Your task to perform on an android device: check storage Image 0: 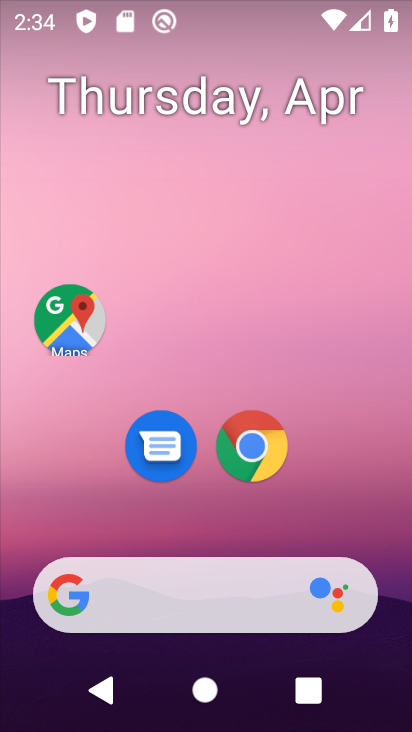
Step 0: drag from (231, 641) to (290, 41)
Your task to perform on an android device: check storage Image 1: 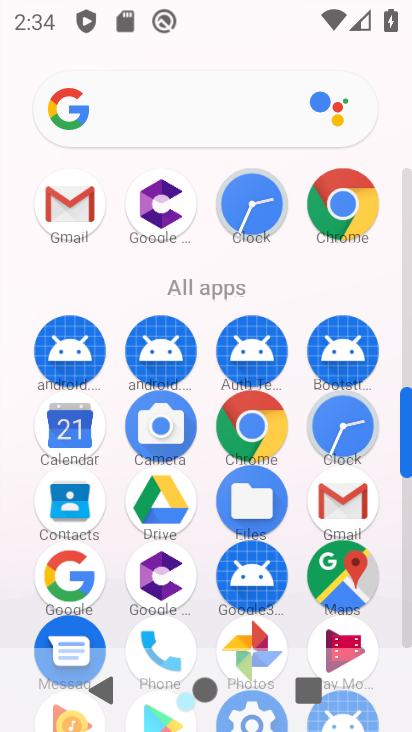
Step 1: drag from (202, 536) to (221, 315)
Your task to perform on an android device: check storage Image 2: 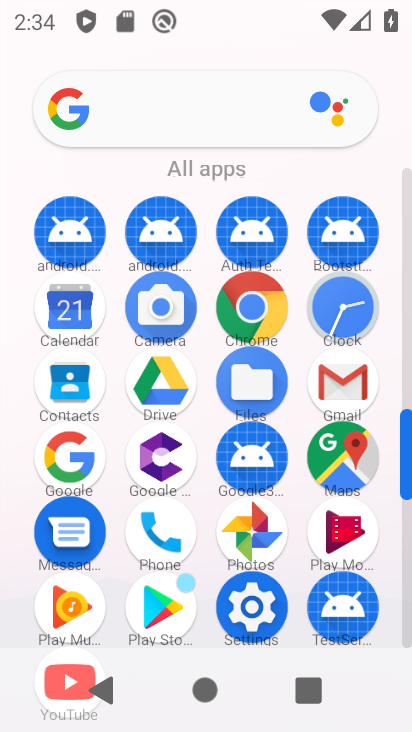
Step 2: click (246, 605)
Your task to perform on an android device: check storage Image 3: 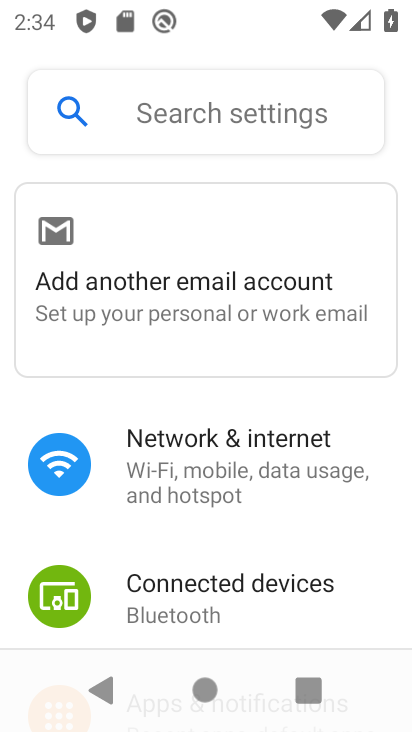
Step 3: click (209, 97)
Your task to perform on an android device: check storage Image 4: 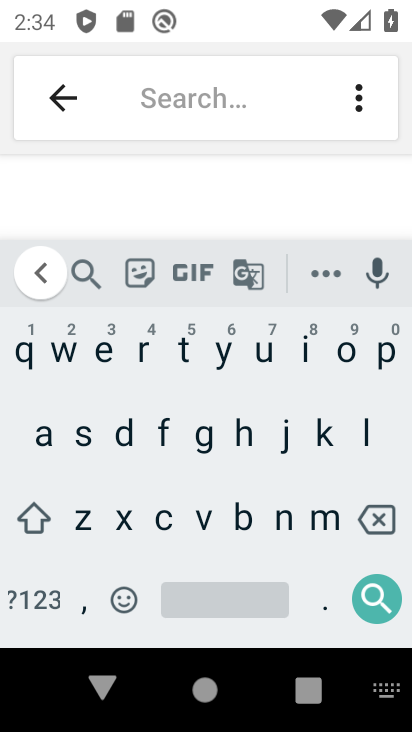
Step 4: click (76, 433)
Your task to perform on an android device: check storage Image 5: 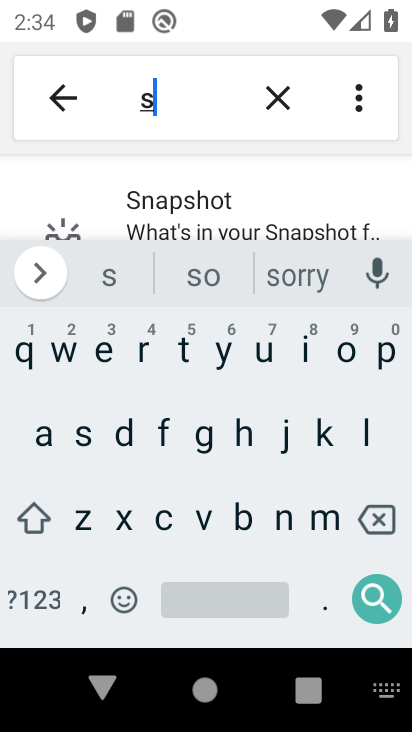
Step 5: click (182, 346)
Your task to perform on an android device: check storage Image 6: 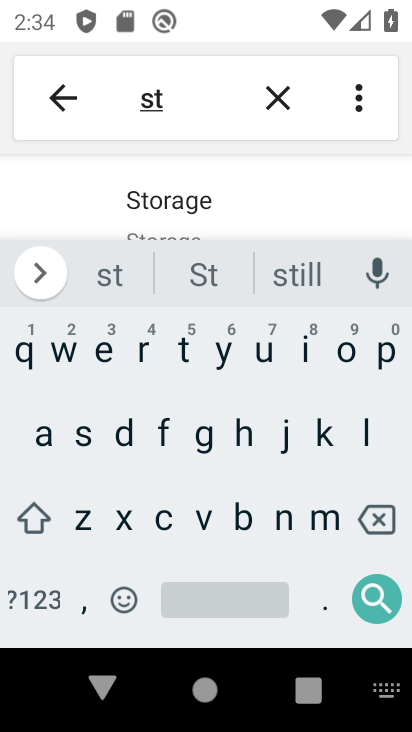
Step 6: click (207, 216)
Your task to perform on an android device: check storage Image 7: 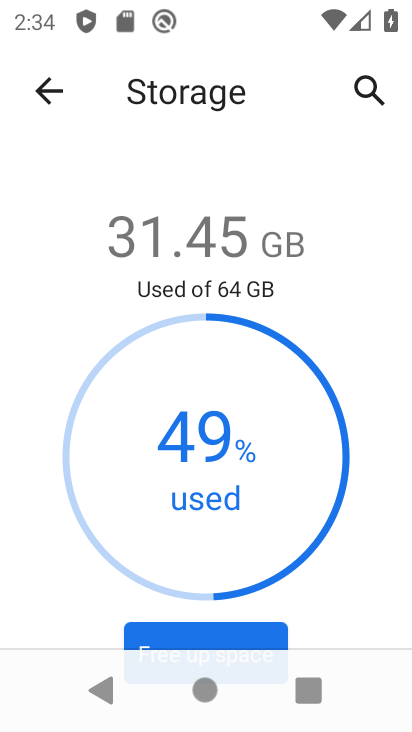
Step 7: task complete